Your task to perform on an android device: Open display settings Image 0: 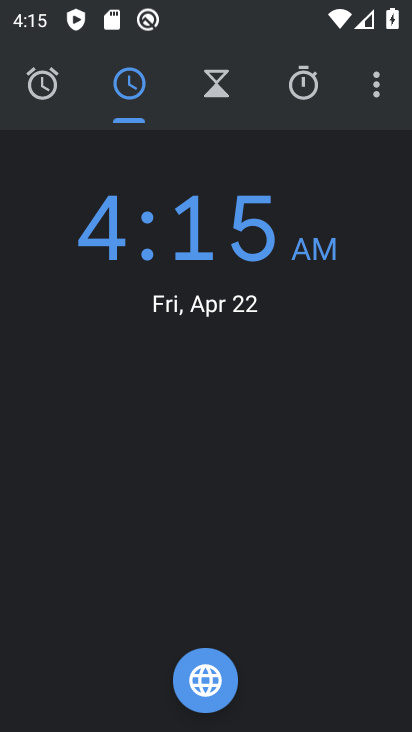
Step 0: press home button
Your task to perform on an android device: Open display settings Image 1: 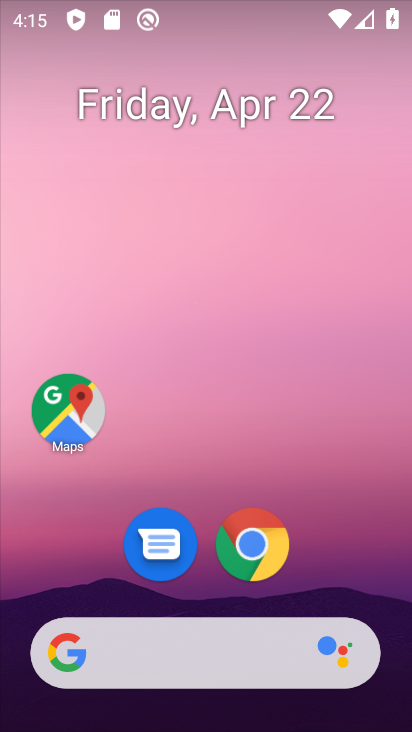
Step 1: drag from (226, 606) to (209, 203)
Your task to perform on an android device: Open display settings Image 2: 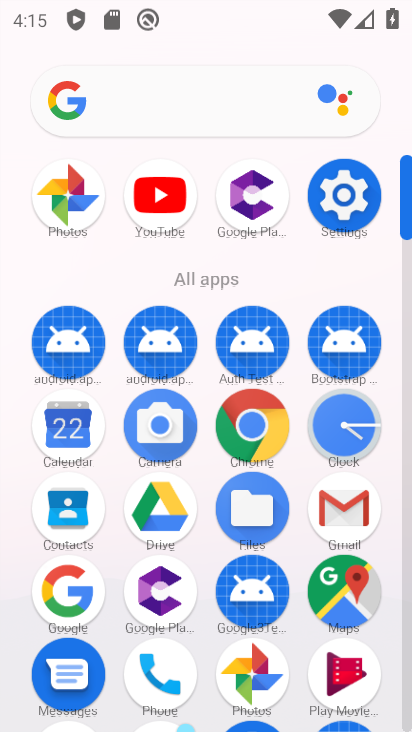
Step 2: click (343, 202)
Your task to perform on an android device: Open display settings Image 3: 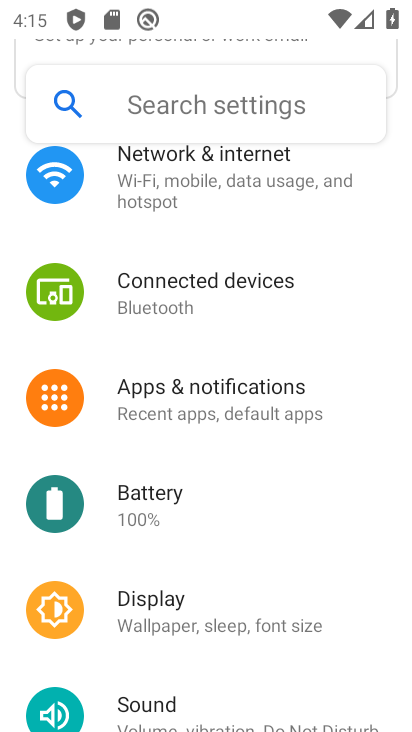
Step 3: click (151, 619)
Your task to perform on an android device: Open display settings Image 4: 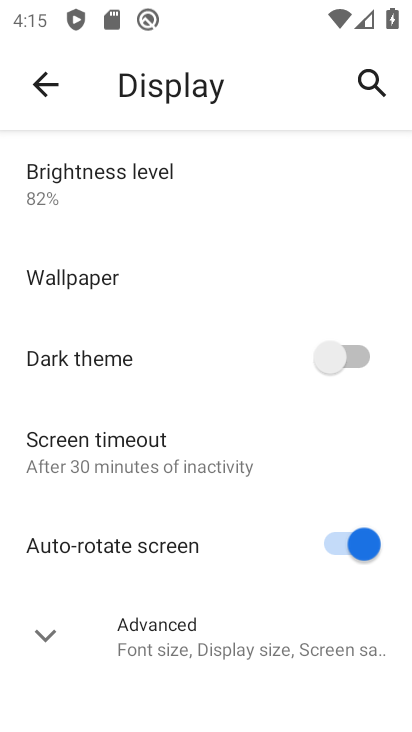
Step 4: click (151, 619)
Your task to perform on an android device: Open display settings Image 5: 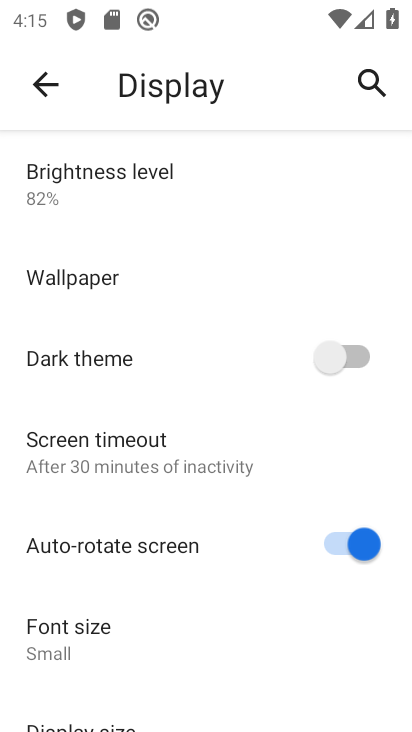
Step 5: task complete